Your task to perform on an android device: allow notifications from all sites in the chrome app Image 0: 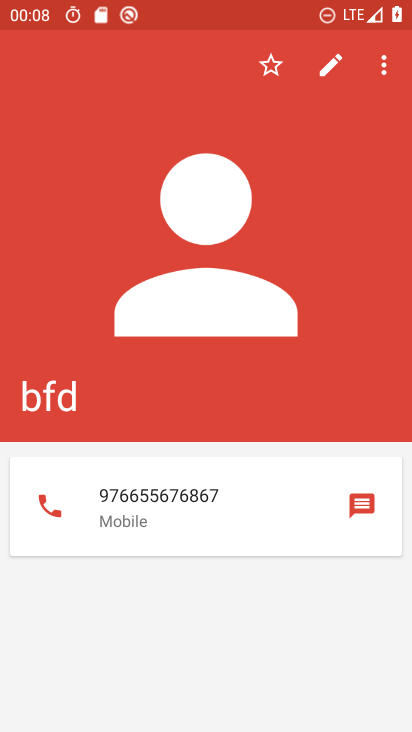
Step 0: press home button
Your task to perform on an android device: allow notifications from all sites in the chrome app Image 1: 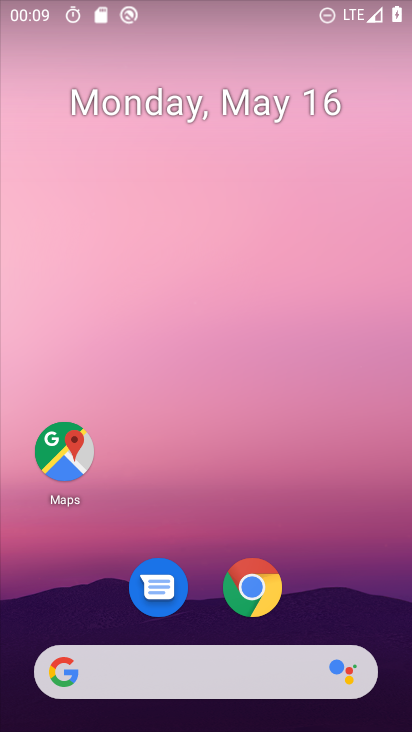
Step 1: click (251, 589)
Your task to perform on an android device: allow notifications from all sites in the chrome app Image 2: 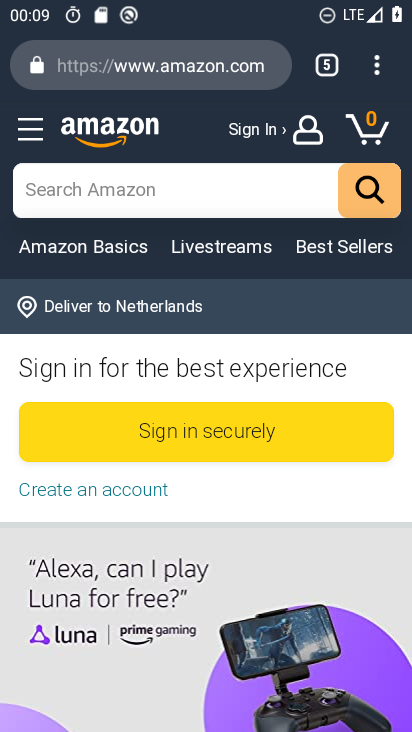
Step 2: click (373, 78)
Your task to perform on an android device: allow notifications from all sites in the chrome app Image 3: 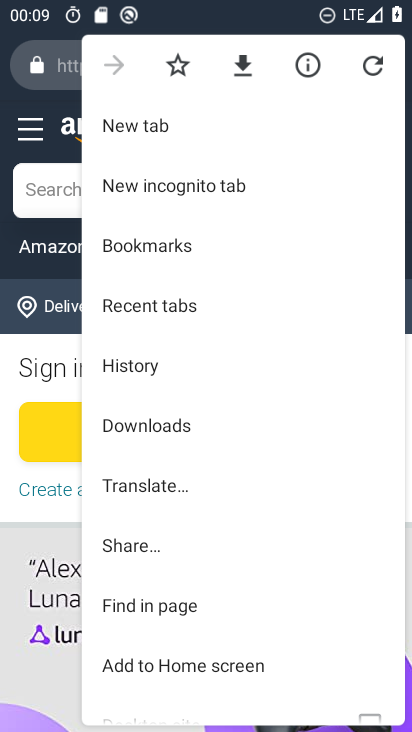
Step 3: drag from (191, 587) to (276, 366)
Your task to perform on an android device: allow notifications from all sites in the chrome app Image 4: 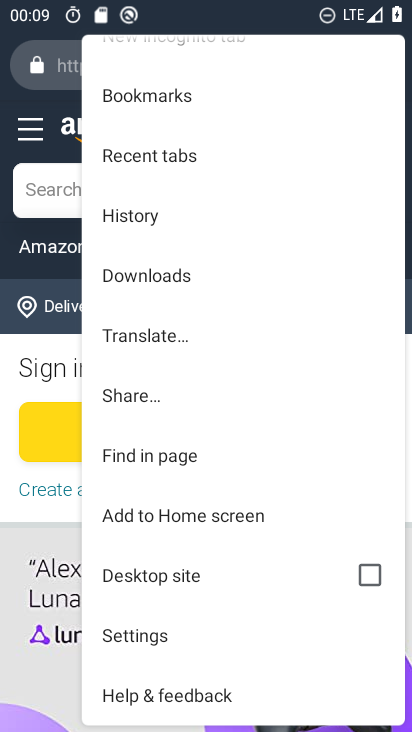
Step 4: click (190, 627)
Your task to perform on an android device: allow notifications from all sites in the chrome app Image 5: 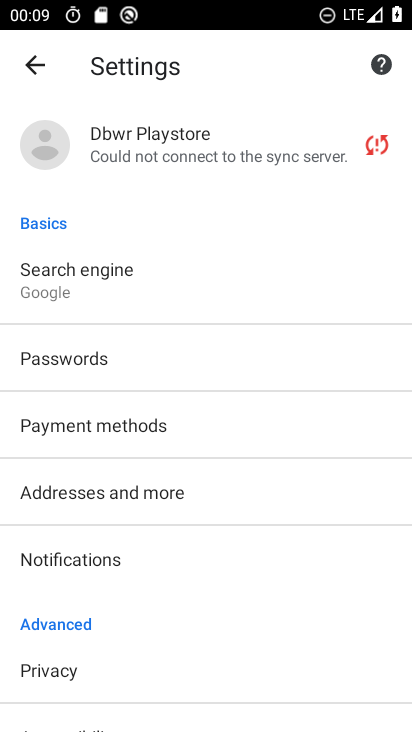
Step 5: drag from (157, 615) to (195, 387)
Your task to perform on an android device: allow notifications from all sites in the chrome app Image 6: 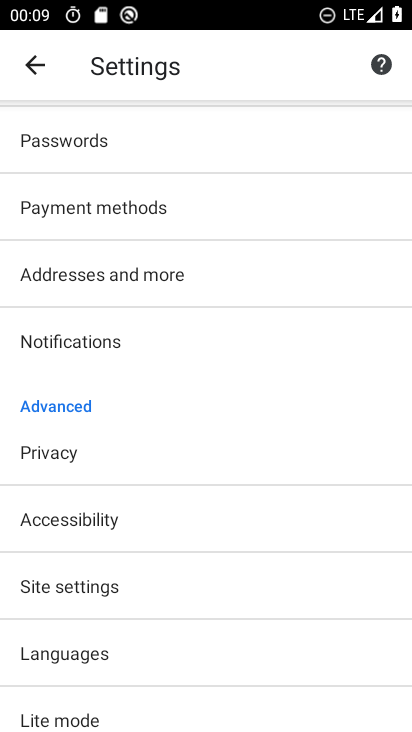
Step 6: click (101, 586)
Your task to perform on an android device: allow notifications from all sites in the chrome app Image 7: 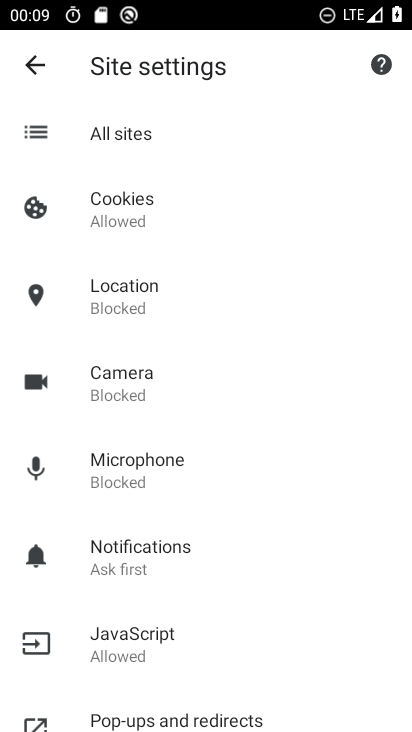
Step 7: click (163, 142)
Your task to perform on an android device: allow notifications from all sites in the chrome app Image 8: 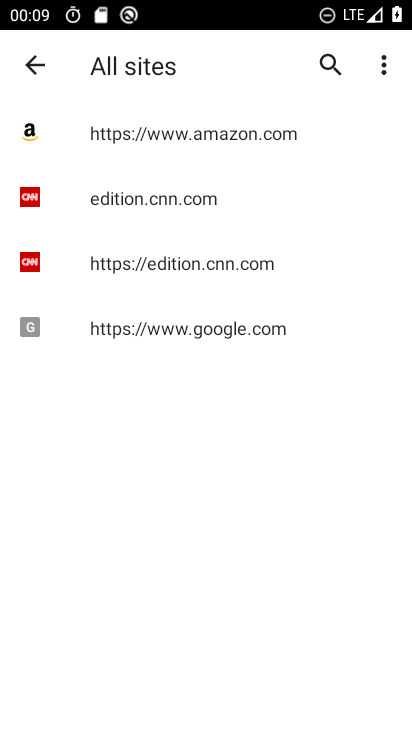
Step 8: click (215, 337)
Your task to perform on an android device: allow notifications from all sites in the chrome app Image 9: 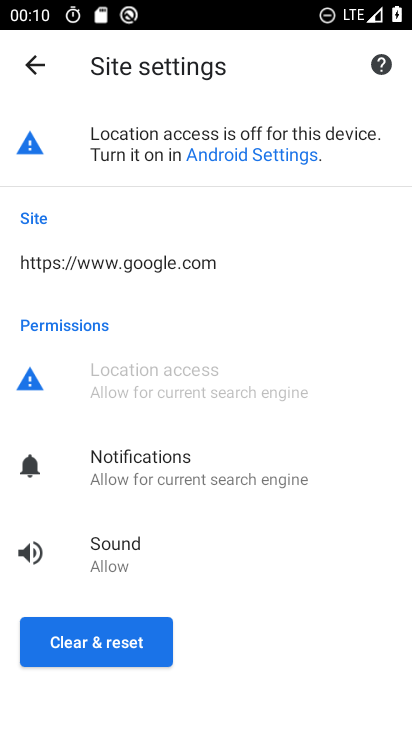
Step 9: click (151, 451)
Your task to perform on an android device: allow notifications from all sites in the chrome app Image 10: 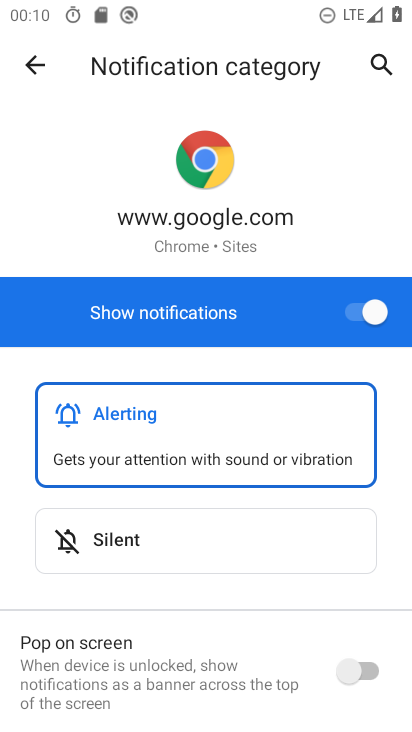
Step 10: task complete